Your task to perform on an android device: Open Google Maps and go to "Timeline" Image 0: 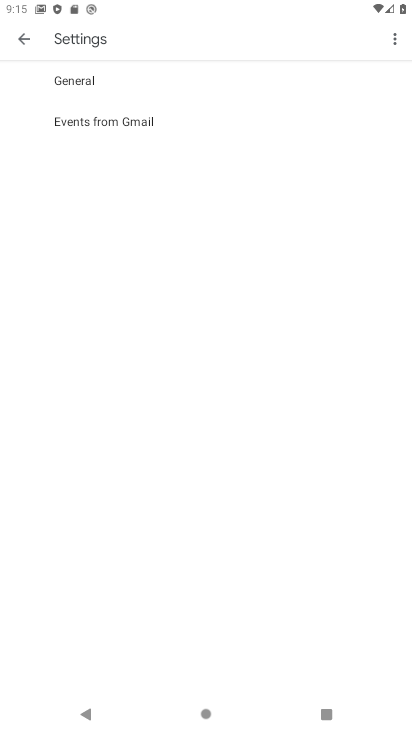
Step 0: press home button
Your task to perform on an android device: Open Google Maps and go to "Timeline" Image 1: 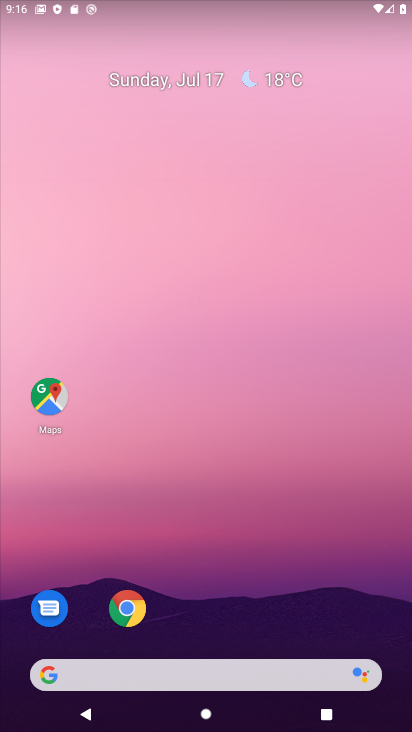
Step 1: click (39, 391)
Your task to perform on an android device: Open Google Maps and go to "Timeline" Image 2: 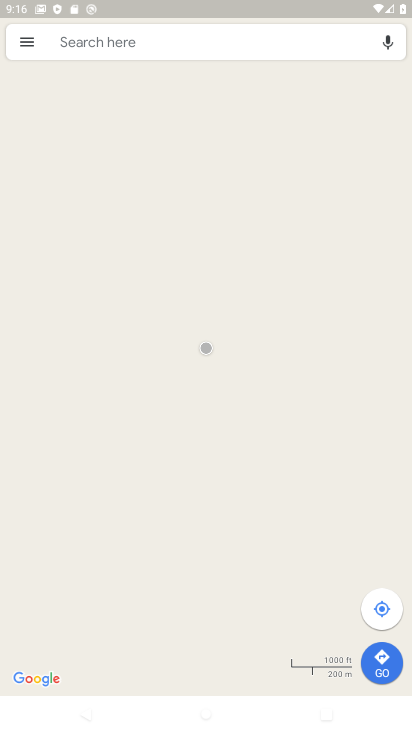
Step 2: click (22, 39)
Your task to perform on an android device: Open Google Maps and go to "Timeline" Image 3: 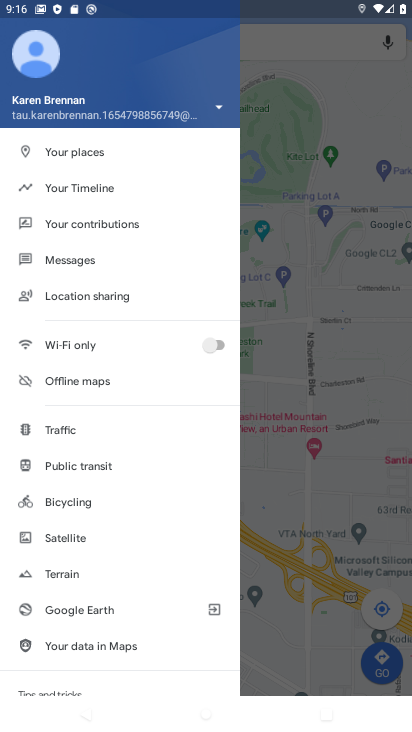
Step 3: click (103, 192)
Your task to perform on an android device: Open Google Maps and go to "Timeline" Image 4: 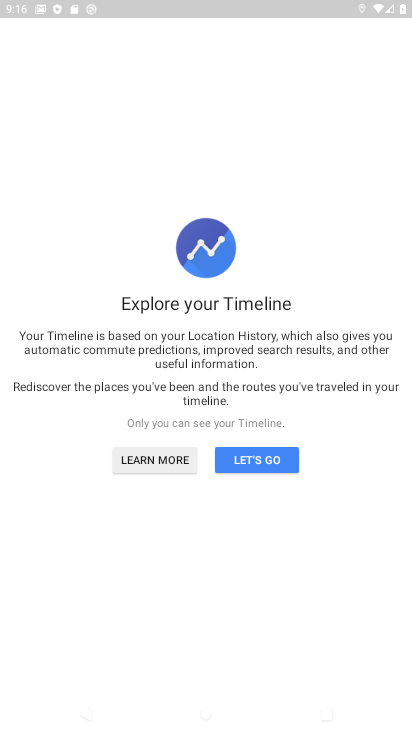
Step 4: click (256, 460)
Your task to perform on an android device: Open Google Maps and go to "Timeline" Image 5: 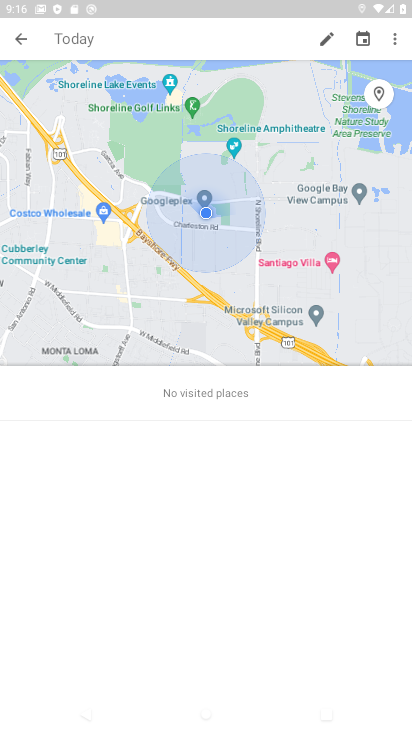
Step 5: task complete